Your task to perform on an android device: set default search engine in the chrome app Image 0: 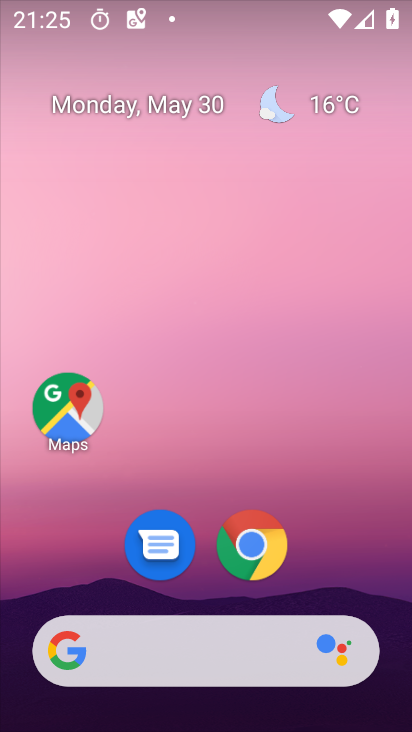
Step 0: click (263, 545)
Your task to perform on an android device: set default search engine in the chrome app Image 1: 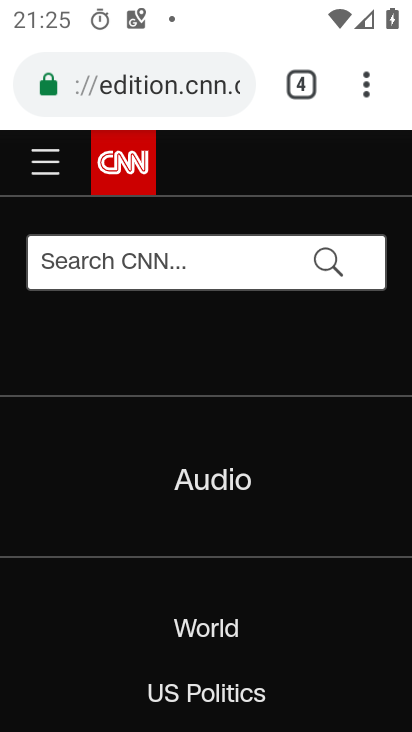
Step 1: click (371, 74)
Your task to perform on an android device: set default search engine in the chrome app Image 2: 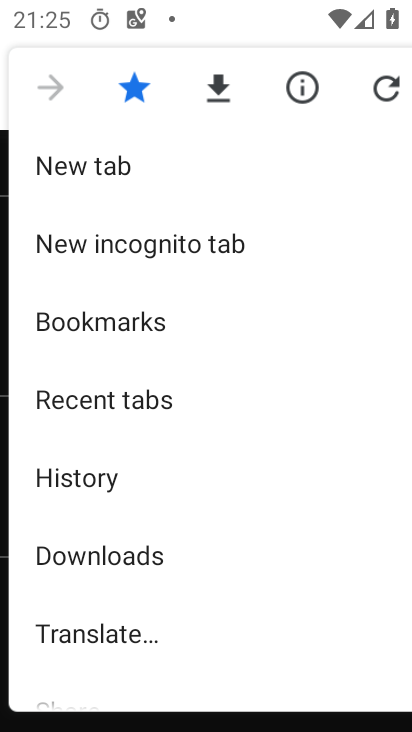
Step 2: drag from (222, 581) to (188, 286)
Your task to perform on an android device: set default search engine in the chrome app Image 3: 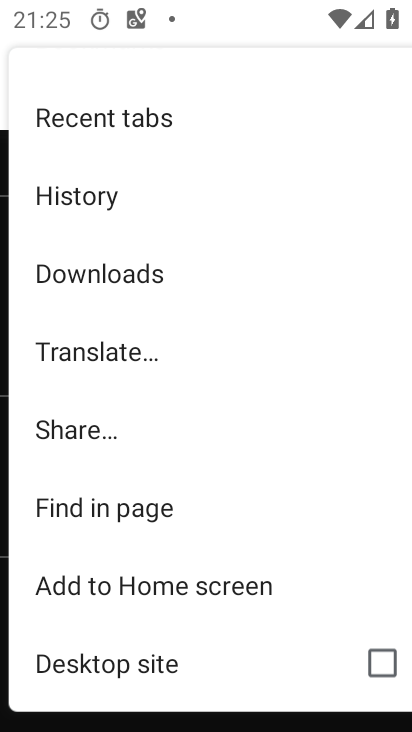
Step 3: drag from (192, 639) to (208, 396)
Your task to perform on an android device: set default search engine in the chrome app Image 4: 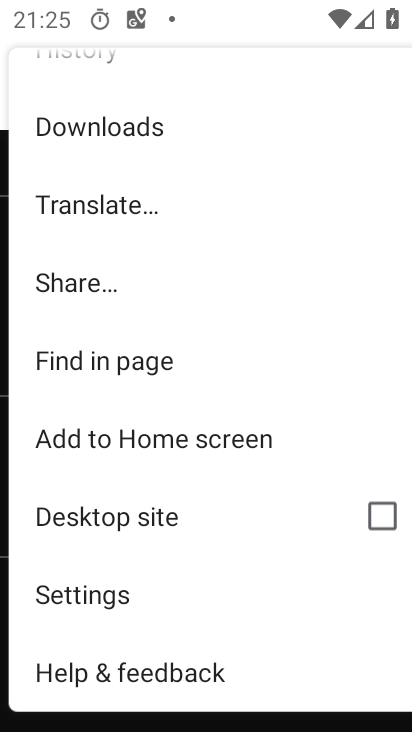
Step 4: click (111, 586)
Your task to perform on an android device: set default search engine in the chrome app Image 5: 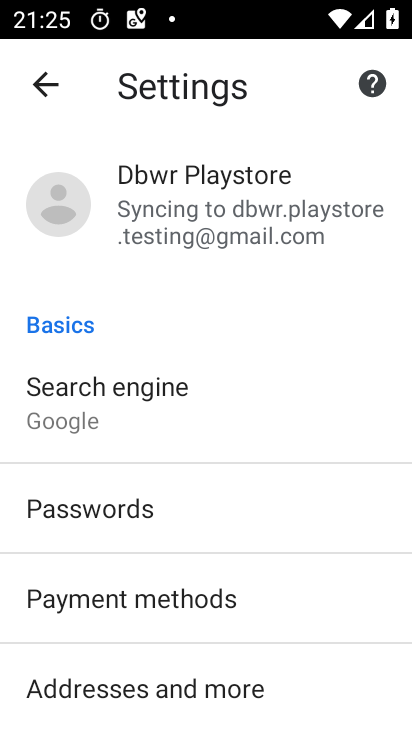
Step 5: click (154, 403)
Your task to perform on an android device: set default search engine in the chrome app Image 6: 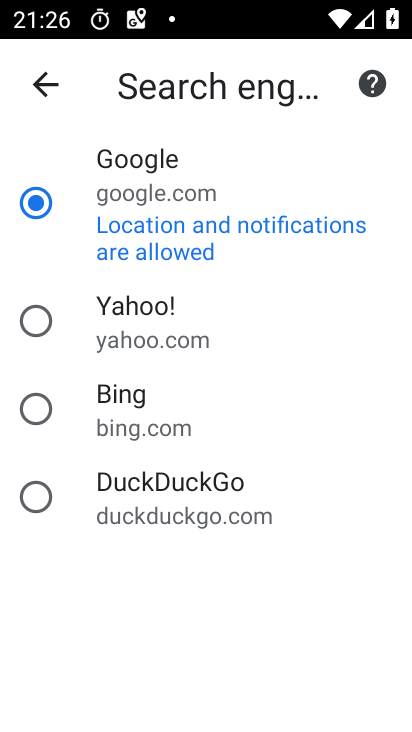
Step 6: task complete